Your task to perform on an android device: Open Google Chrome and click the shortcut for Amazon.com Image 0: 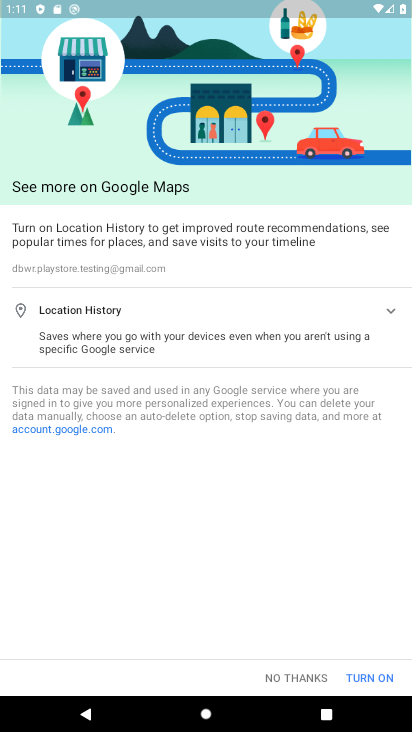
Step 0: press home button
Your task to perform on an android device: Open Google Chrome and click the shortcut for Amazon.com Image 1: 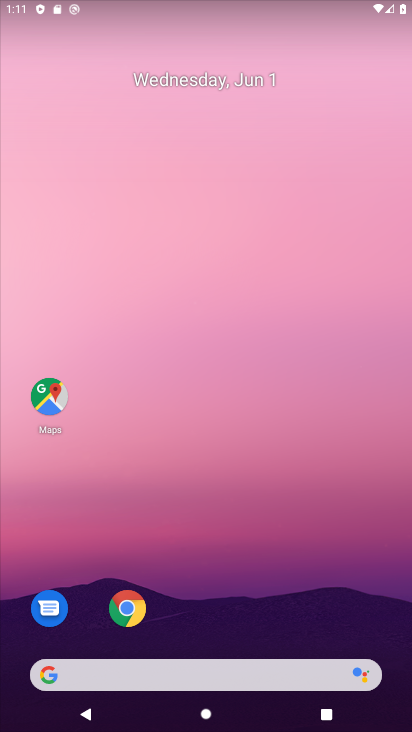
Step 1: drag from (217, 636) to (182, 338)
Your task to perform on an android device: Open Google Chrome and click the shortcut for Amazon.com Image 2: 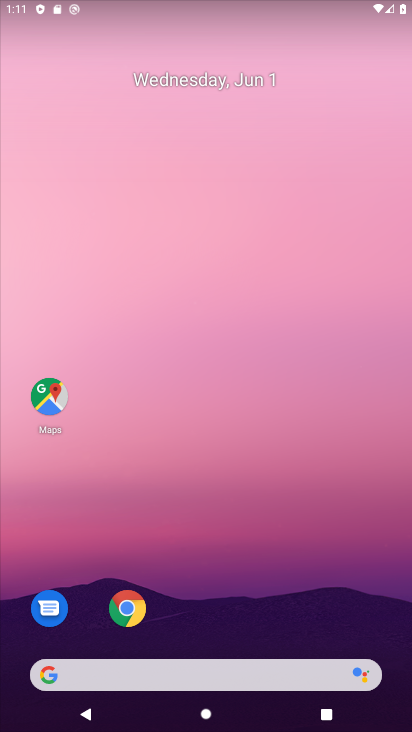
Step 2: click (123, 617)
Your task to perform on an android device: Open Google Chrome and click the shortcut for Amazon.com Image 3: 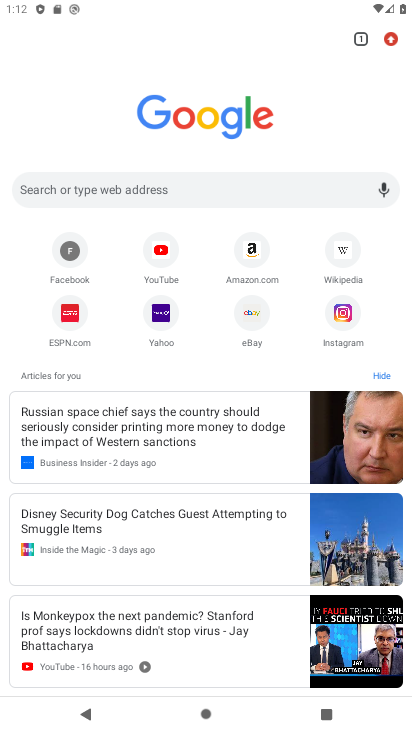
Step 3: click (254, 255)
Your task to perform on an android device: Open Google Chrome and click the shortcut for Amazon.com Image 4: 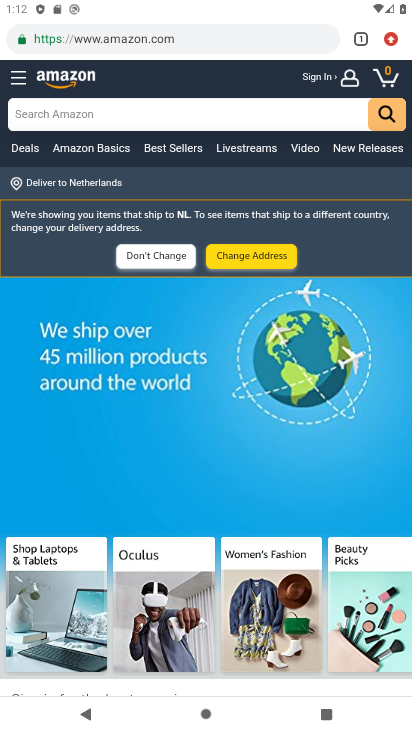
Step 4: task complete